Your task to perform on an android device: turn on javascript in the chrome app Image 0: 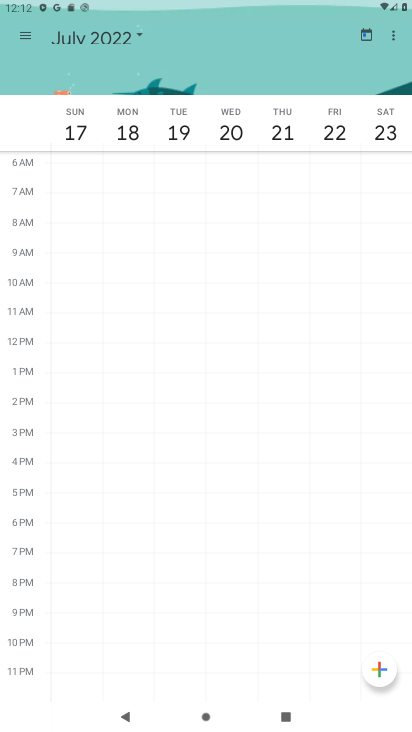
Step 0: press home button
Your task to perform on an android device: turn on javascript in the chrome app Image 1: 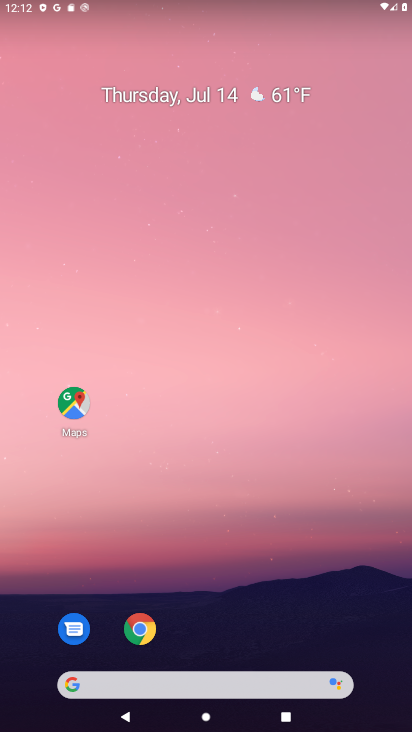
Step 1: click (143, 609)
Your task to perform on an android device: turn on javascript in the chrome app Image 2: 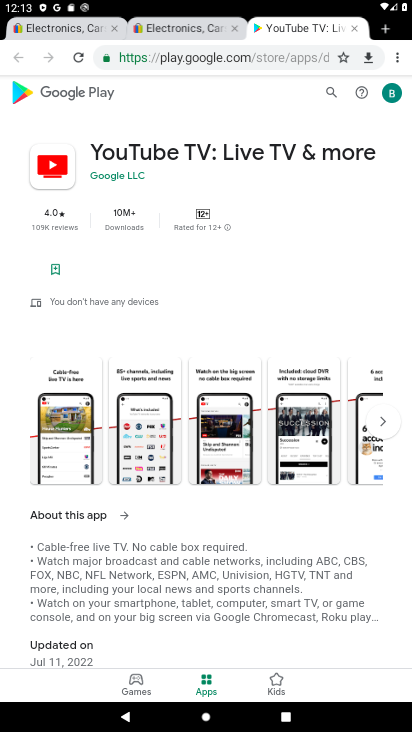
Step 2: click (403, 55)
Your task to perform on an android device: turn on javascript in the chrome app Image 3: 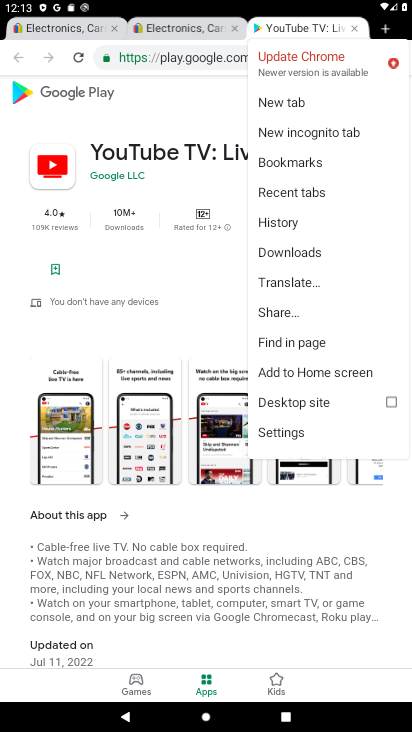
Step 3: click (306, 435)
Your task to perform on an android device: turn on javascript in the chrome app Image 4: 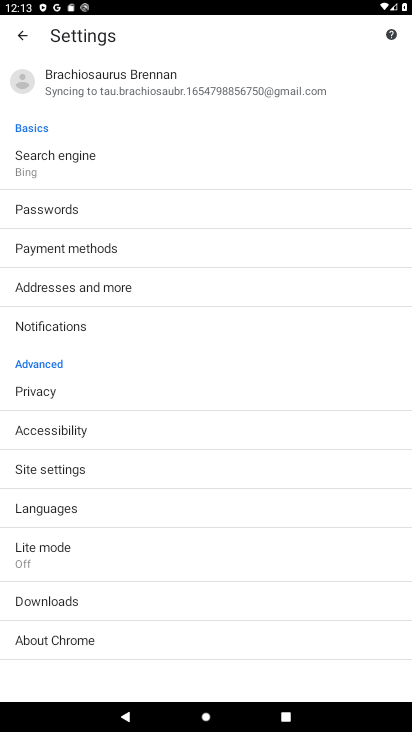
Step 4: click (101, 473)
Your task to perform on an android device: turn on javascript in the chrome app Image 5: 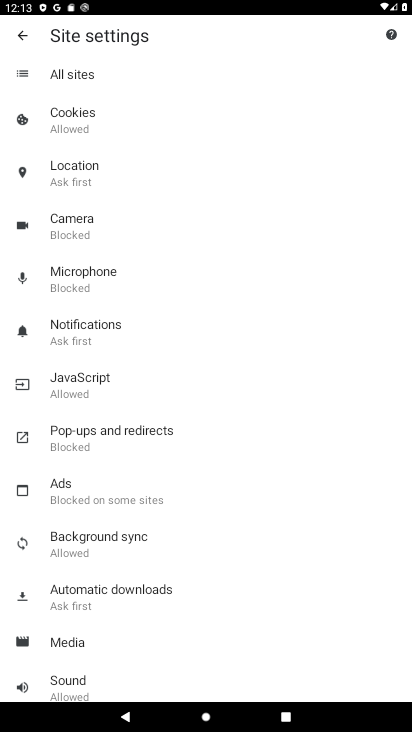
Step 5: click (122, 383)
Your task to perform on an android device: turn on javascript in the chrome app Image 6: 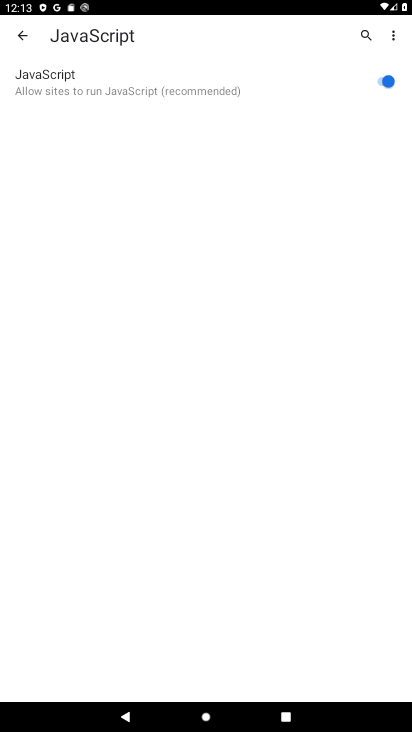
Step 6: task complete